Your task to perform on an android device: Go to notification settings Image 0: 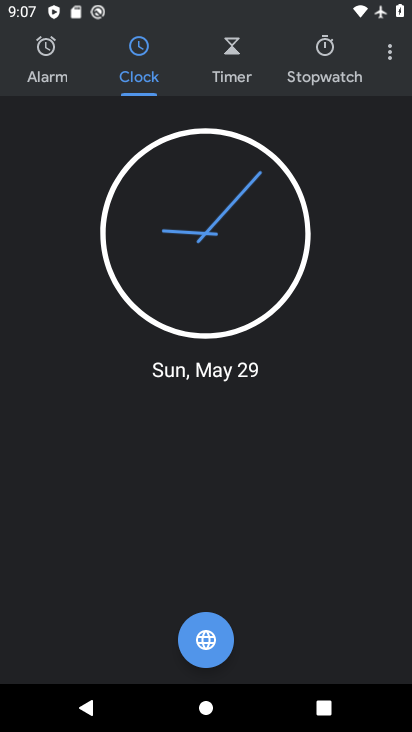
Step 0: press home button
Your task to perform on an android device: Go to notification settings Image 1: 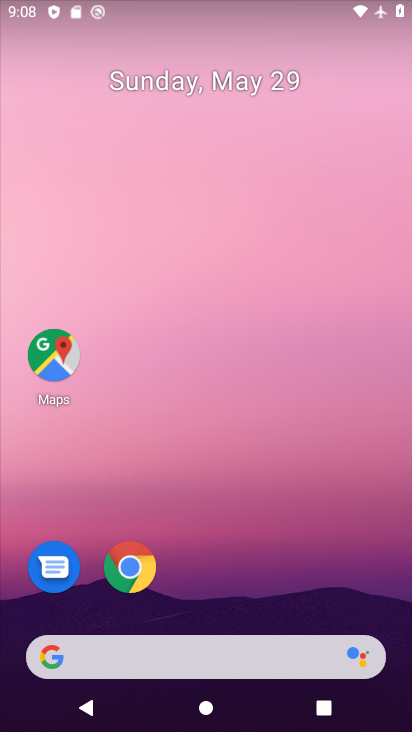
Step 1: drag from (372, 611) to (339, 15)
Your task to perform on an android device: Go to notification settings Image 2: 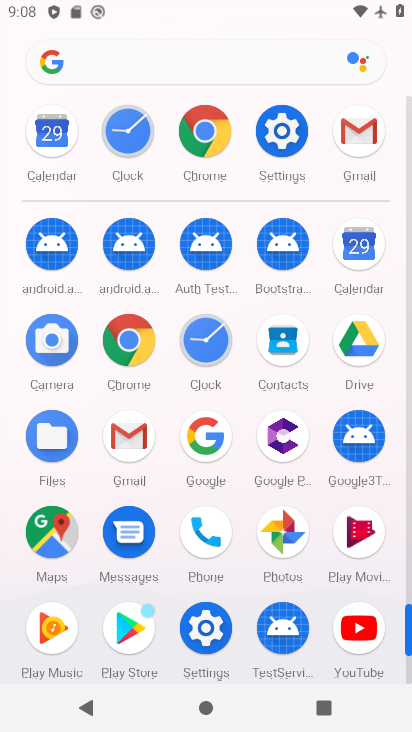
Step 2: click (208, 629)
Your task to perform on an android device: Go to notification settings Image 3: 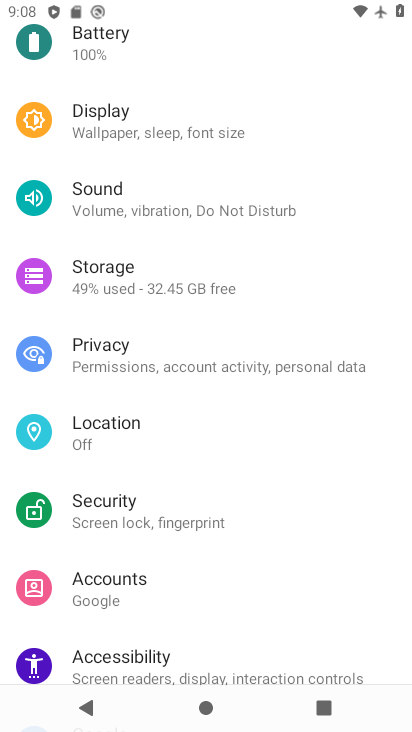
Step 3: drag from (324, 162) to (302, 572)
Your task to perform on an android device: Go to notification settings Image 4: 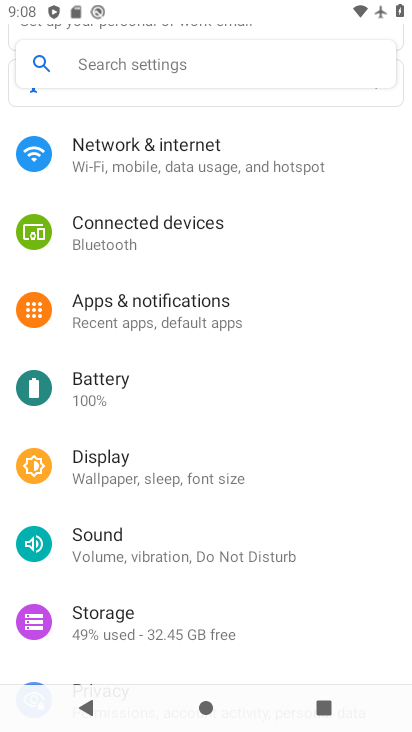
Step 4: click (145, 306)
Your task to perform on an android device: Go to notification settings Image 5: 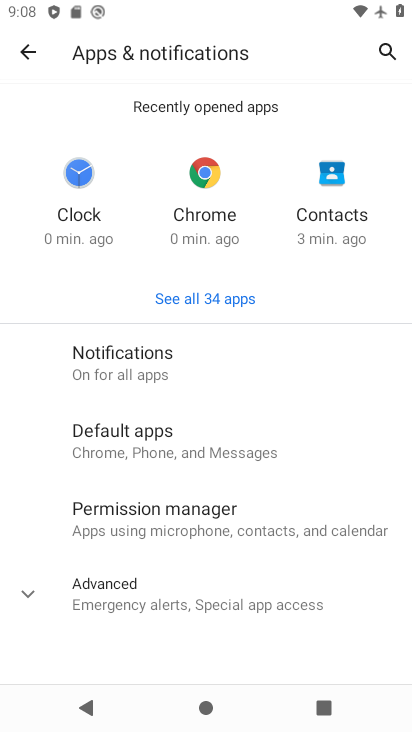
Step 5: click (112, 369)
Your task to perform on an android device: Go to notification settings Image 6: 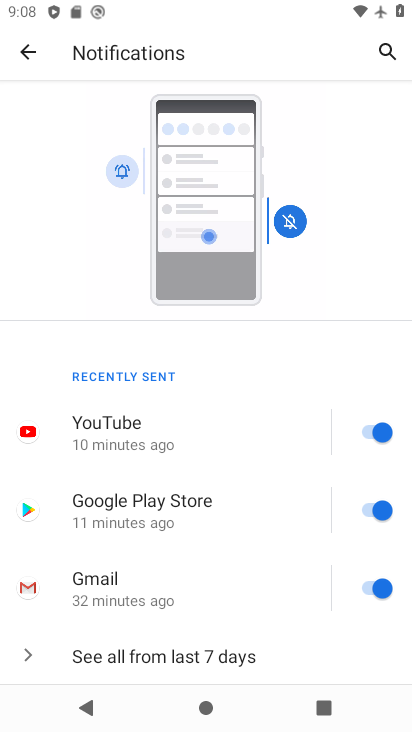
Step 6: drag from (308, 645) to (289, 114)
Your task to perform on an android device: Go to notification settings Image 7: 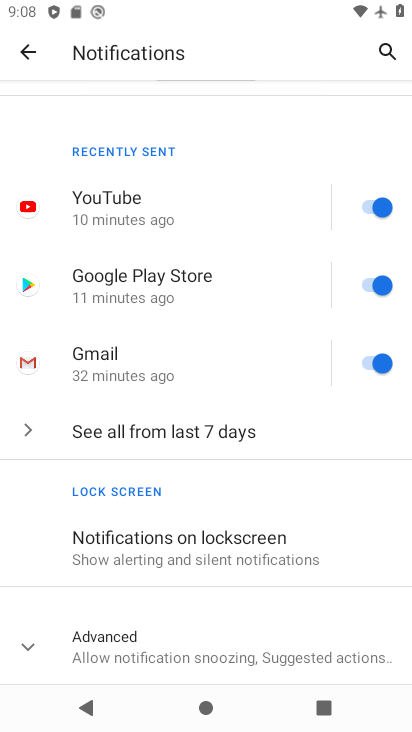
Step 7: click (23, 645)
Your task to perform on an android device: Go to notification settings Image 8: 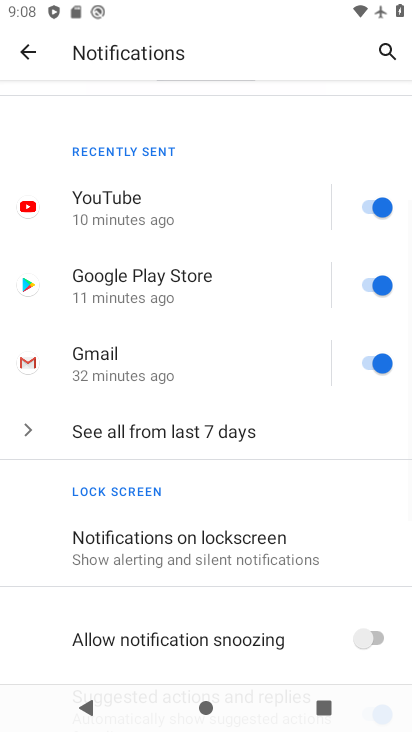
Step 8: task complete